Your task to perform on an android device: Show me popular games on the Play Store Image 0: 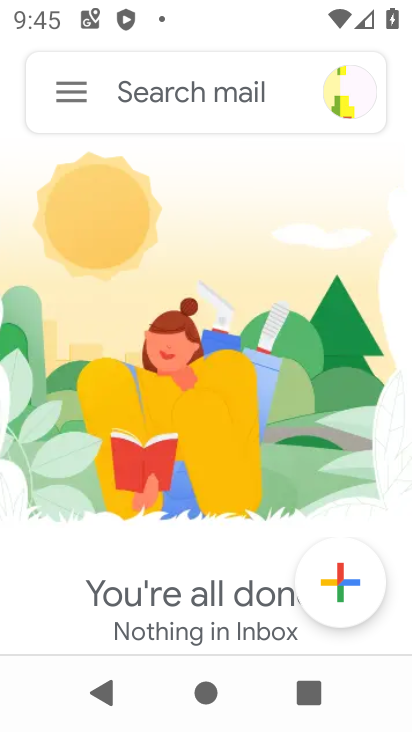
Step 0: press home button
Your task to perform on an android device: Show me popular games on the Play Store Image 1: 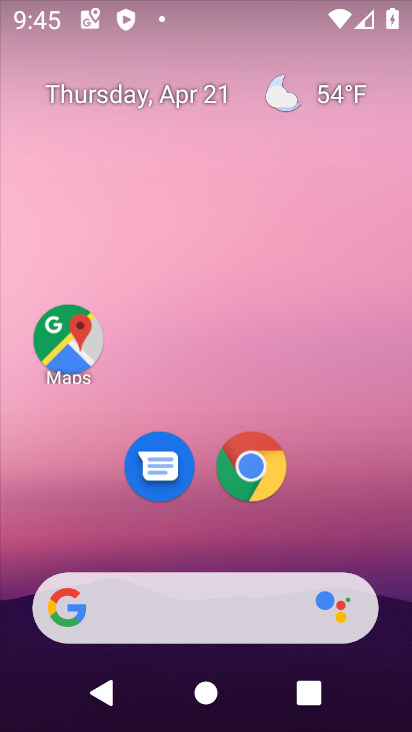
Step 1: drag from (337, 520) to (341, 127)
Your task to perform on an android device: Show me popular games on the Play Store Image 2: 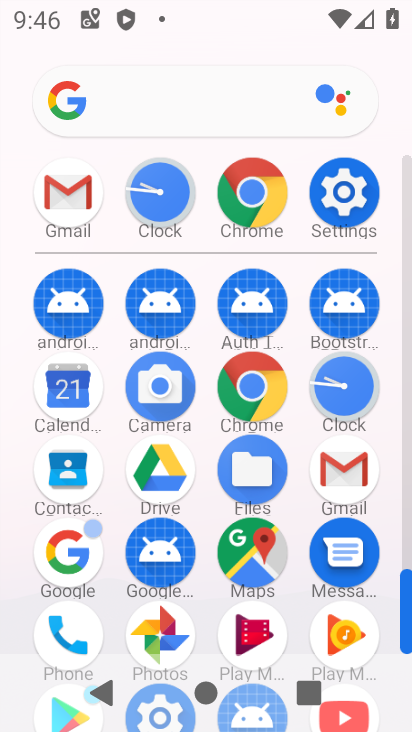
Step 2: drag from (290, 526) to (320, 274)
Your task to perform on an android device: Show me popular games on the Play Store Image 3: 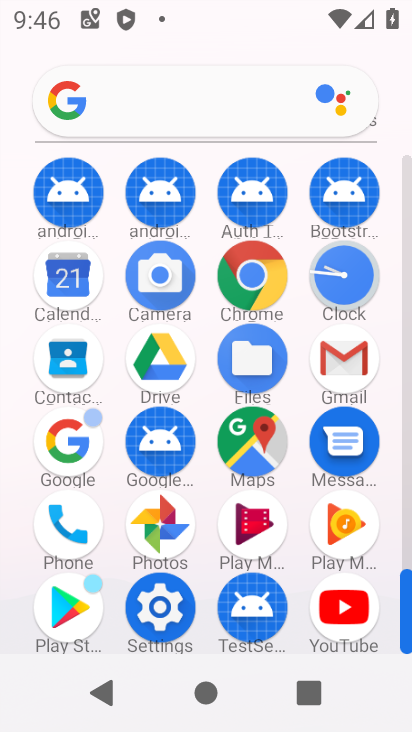
Step 3: click (80, 616)
Your task to perform on an android device: Show me popular games on the Play Store Image 4: 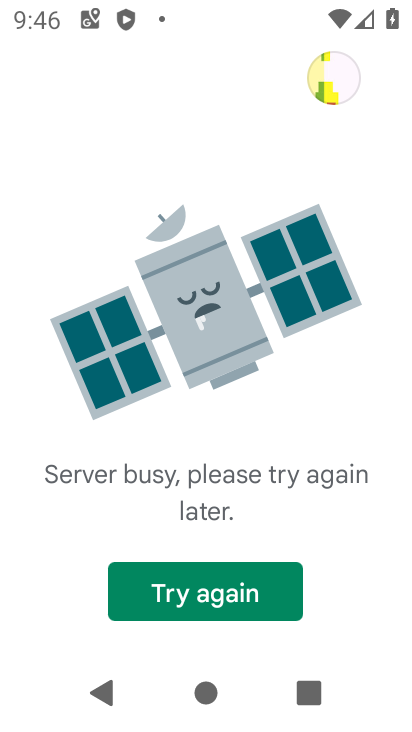
Step 4: task complete